Your task to perform on an android device: Open settings Image 0: 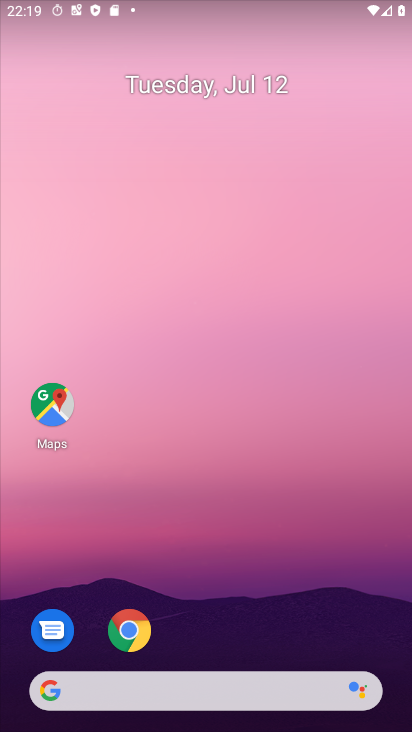
Step 0: drag from (287, 567) to (270, 1)
Your task to perform on an android device: Open settings Image 1: 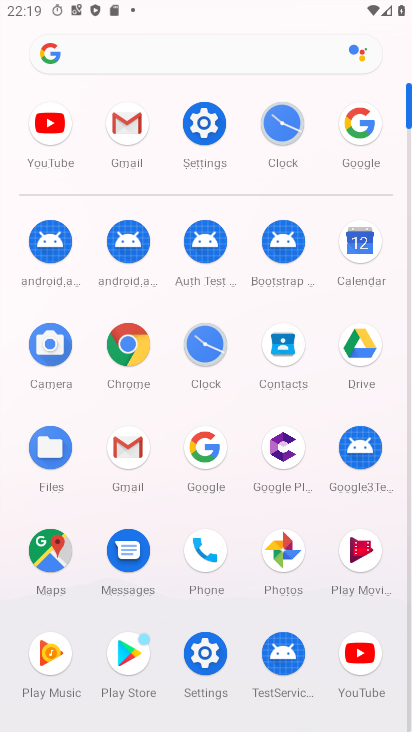
Step 1: click (206, 132)
Your task to perform on an android device: Open settings Image 2: 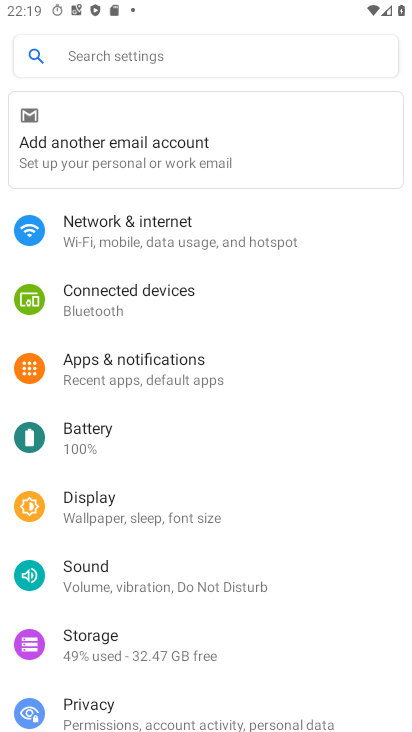
Step 2: task complete